Your task to perform on an android device: Open Wikipedia Image 0: 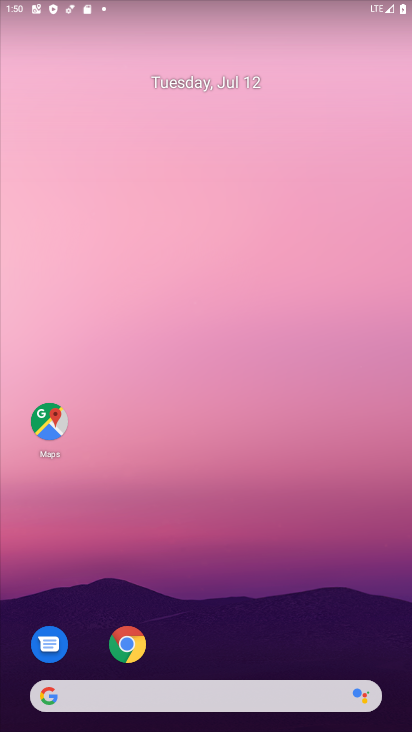
Step 0: click (134, 644)
Your task to perform on an android device: Open Wikipedia Image 1: 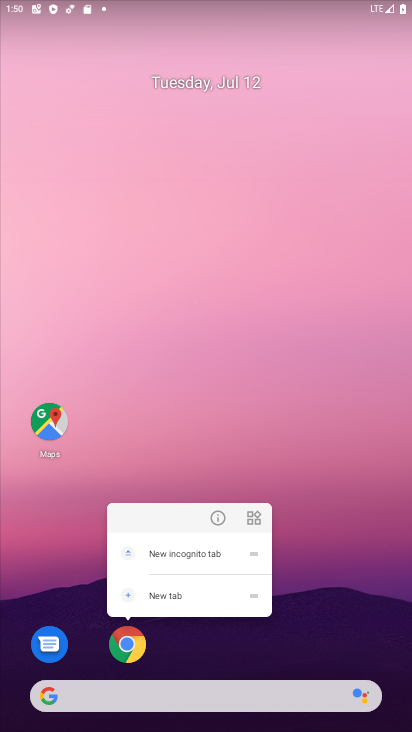
Step 1: click (129, 638)
Your task to perform on an android device: Open Wikipedia Image 2: 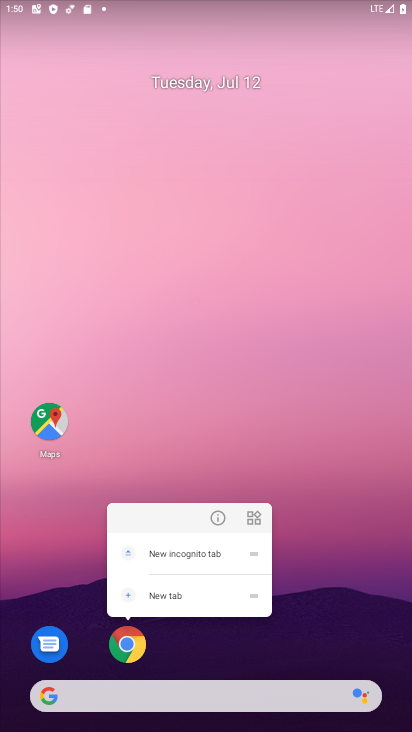
Step 2: click (130, 656)
Your task to perform on an android device: Open Wikipedia Image 3: 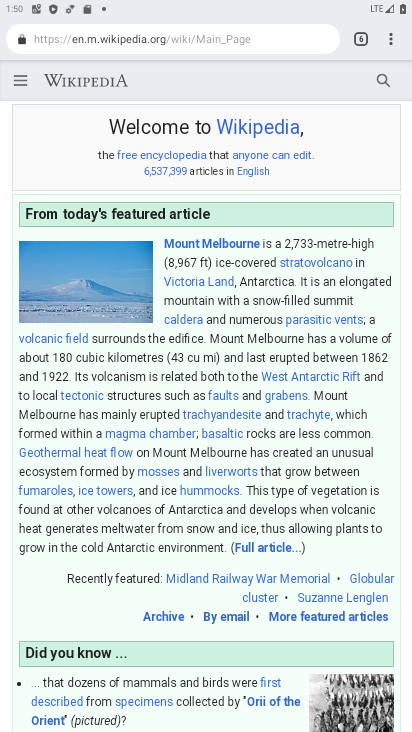
Step 3: task complete